Your task to perform on an android device: Go to eBay Image 0: 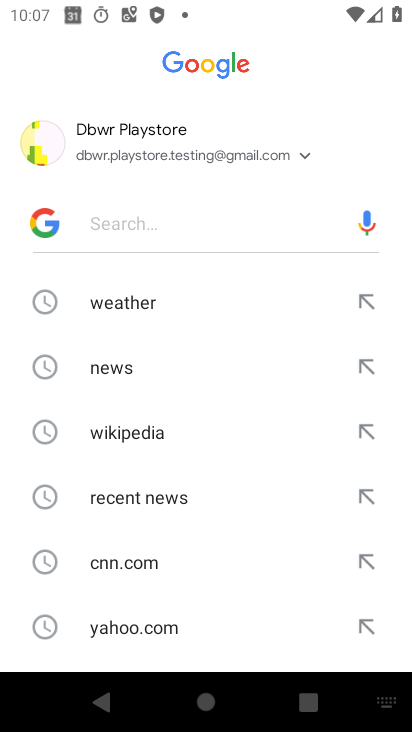
Step 0: press home button
Your task to perform on an android device: Go to eBay Image 1: 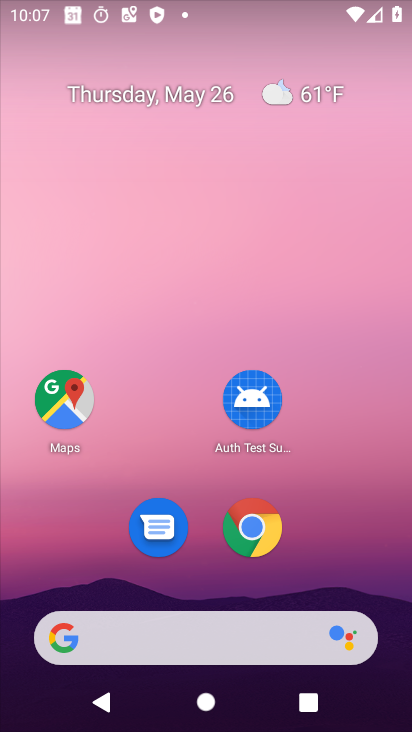
Step 1: drag from (346, 477) to (188, 18)
Your task to perform on an android device: Go to eBay Image 2: 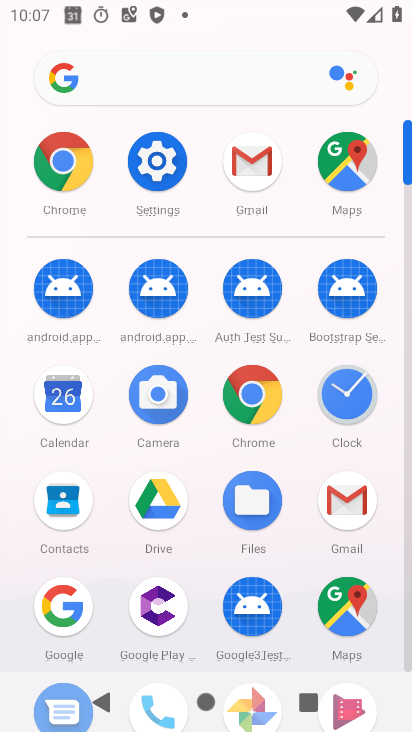
Step 2: click (51, 189)
Your task to perform on an android device: Go to eBay Image 3: 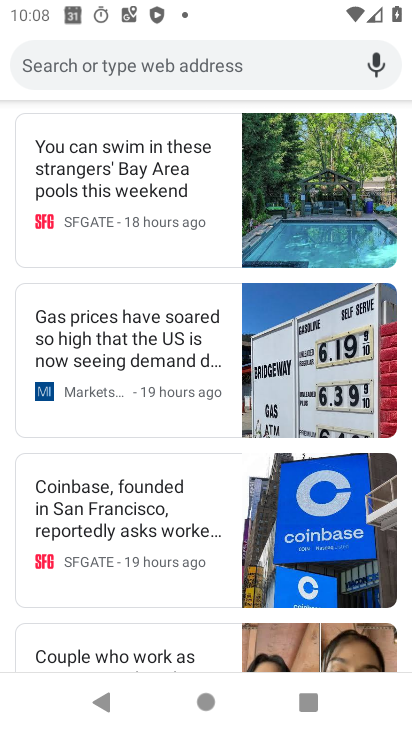
Step 3: click (90, 64)
Your task to perform on an android device: Go to eBay Image 4: 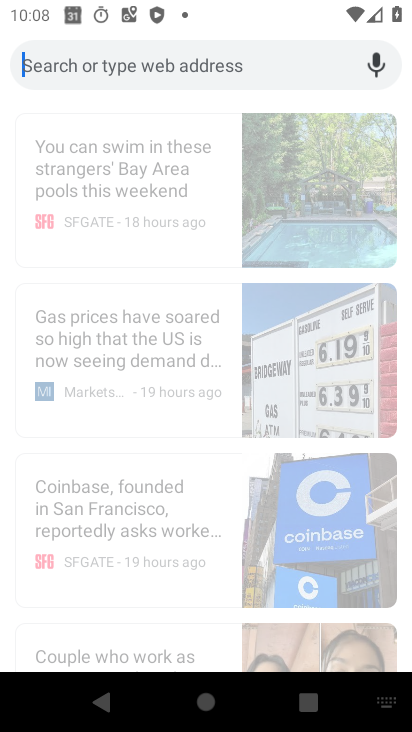
Step 4: type "ebay"
Your task to perform on an android device: Go to eBay Image 5: 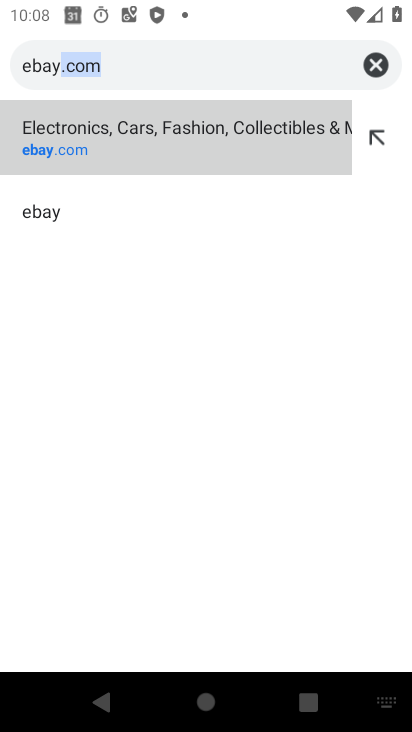
Step 5: click (103, 132)
Your task to perform on an android device: Go to eBay Image 6: 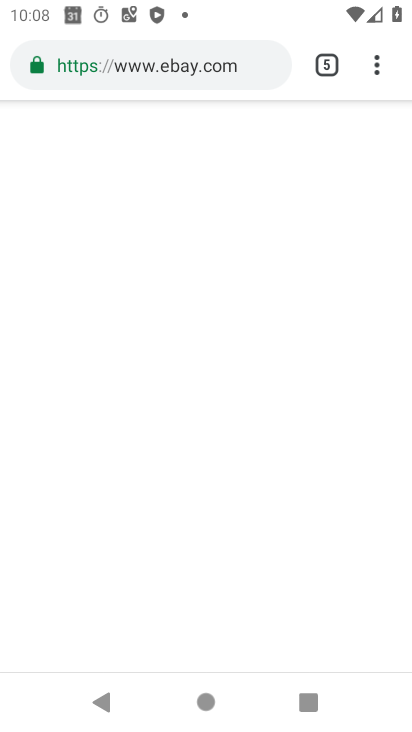
Step 6: task complete